Your task to perform on an android device: Search for sushi restaurants on Maps Image 0: 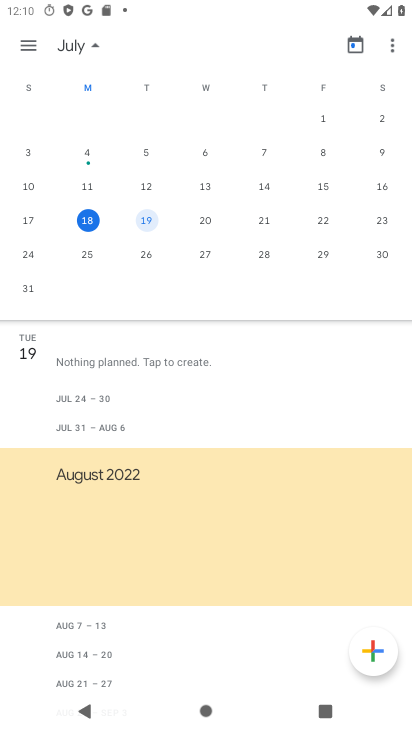
Step 0: press home button
Your task to perform on an android device: Search for sushi restaurants on Maps Image 1: 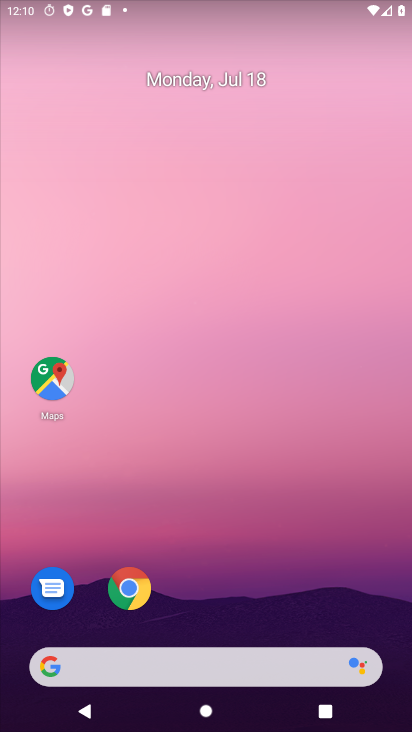
Step 1: drag from (231, 558) to (309, 54)
Your task to perform on an android device: Search for sushi restaurants on Maps Image 2: 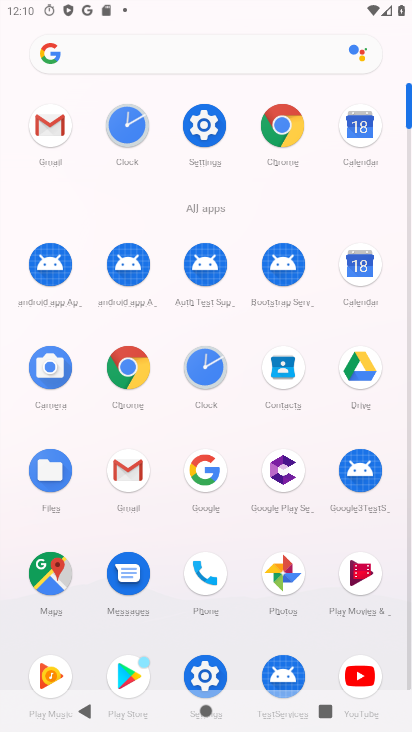
Step 2: click (38, 561)
Your task to perform on an android device: Search for sushi restaurants on Maps Image 3: 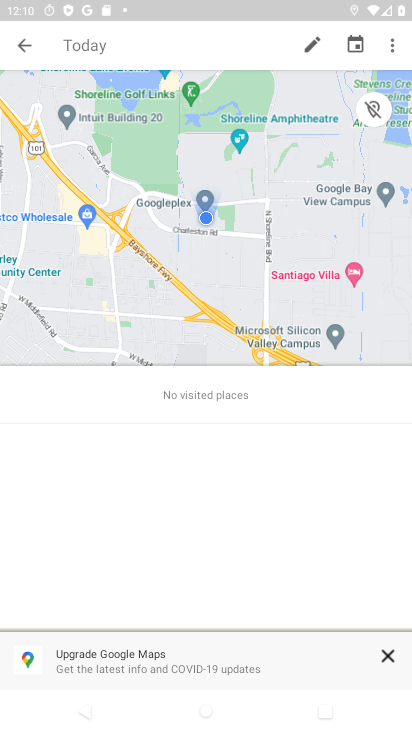
Step 3: click (20, 47)
Your task to perform on an android device: Search for sushi restaurants on Maps Image 4: 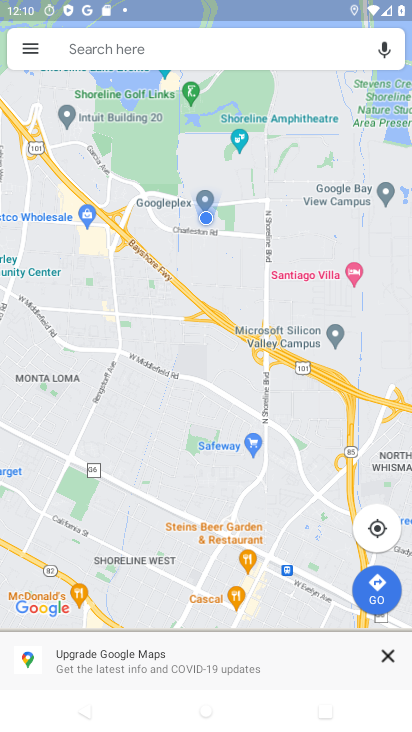
Step 4: click (133, 51)
Your task to perform on an android device: Search for sushi restaurants on Maps Image 5: 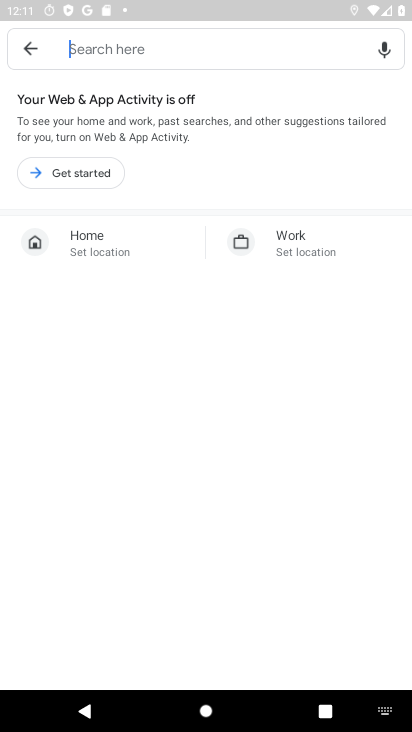
Step 5: type "sushi restaurants"
Your task to perform on an android device: Search for sushi restaurants on Maps Image 6: 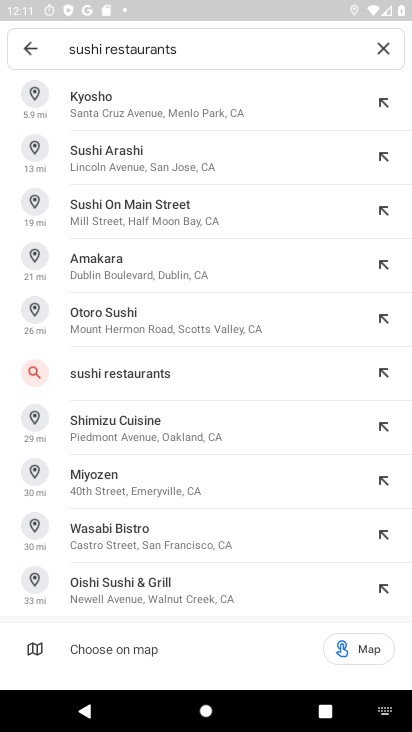
Step 6: click (113, 370)
Your task to perform on an android device: Search for sushi restaurants on Maps Image 7: 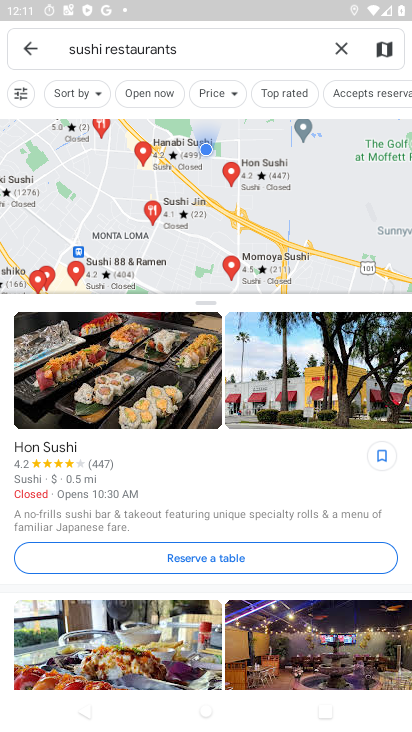
Step 7: task complete